Your task to perform on an android device: Open Reddit.com Image 0: 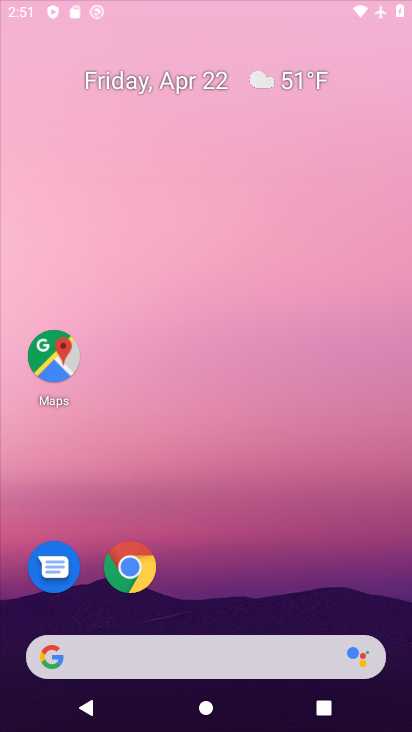
Step 0: drag from (248, 689) to (86, 129)
Your task to perform on an android device: Open Reddit.com Image 1: 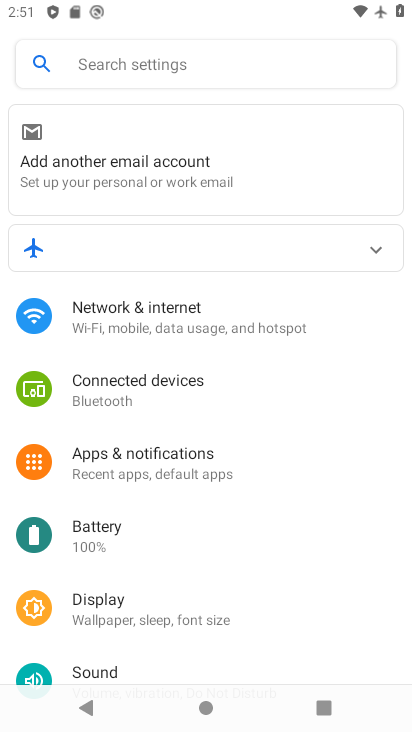
Step 1: click (131, 310)
Your task to perform on an android device: Open Reddit.com Image 2: 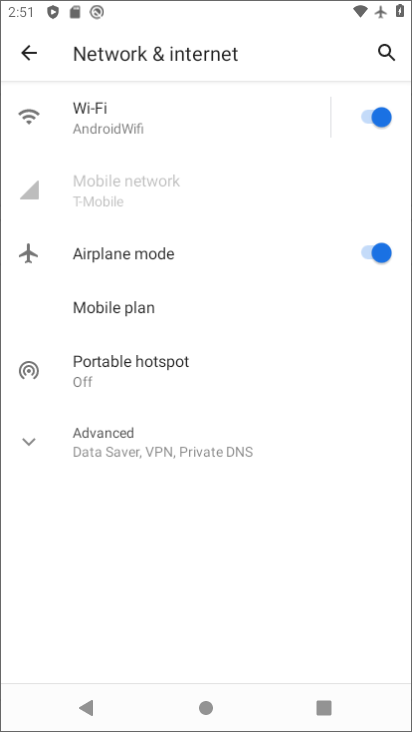
Step 2: press home button
Your task to perform on an android device: Open Reddit.com Image 3: 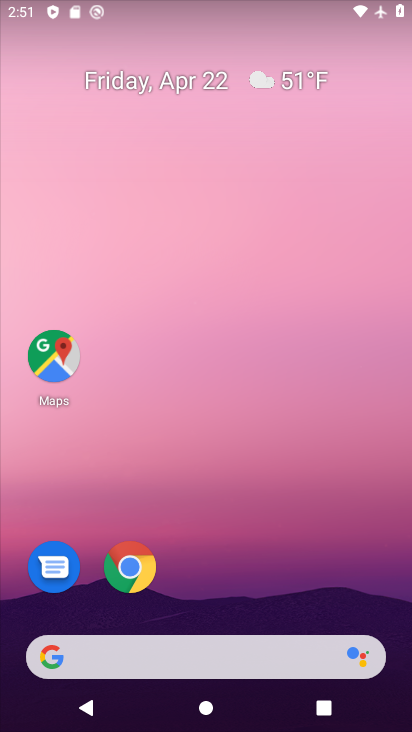
Step 3: drag from (246, 643) to (65, 42)
Your task to perform on an android device: Open Reddit.com Image 4: 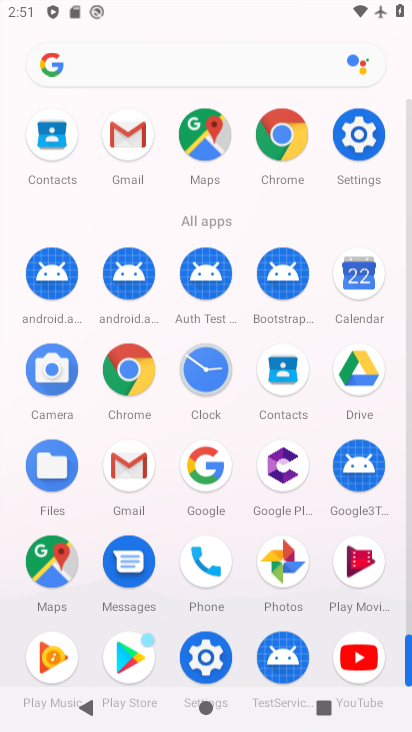
Step 4: drag from (202, 642) to (110, 118)
Your task to perform on an android device: Open Reddit.com Image 5: 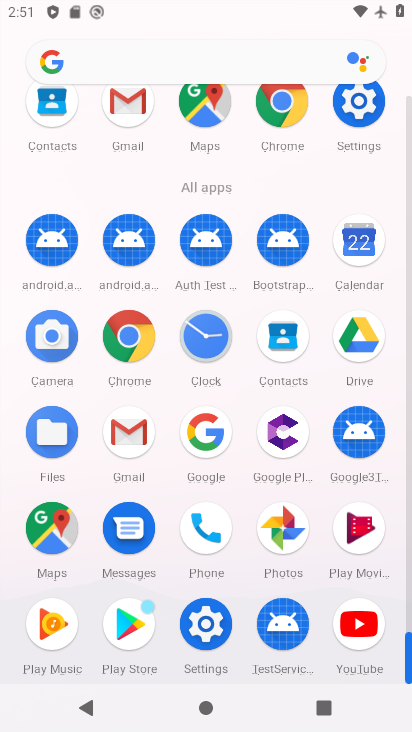
Step 5: click (280, 112)
Your task to perform on an android device: Open Reddit.com Image 6: 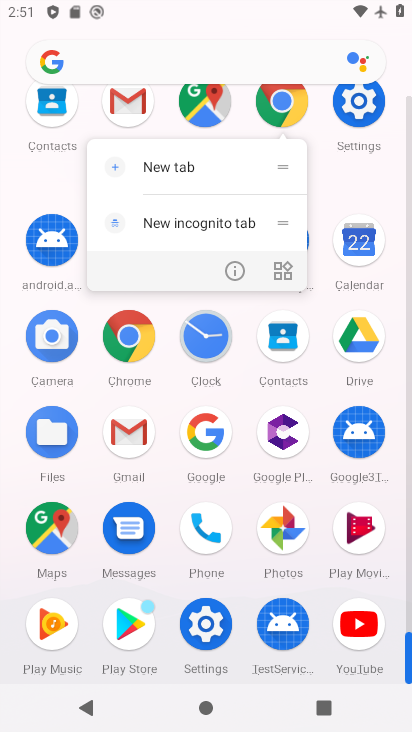
Step 6: click (280, 112)
Your task to perform on an android device: Open Reddit.com Image 7: 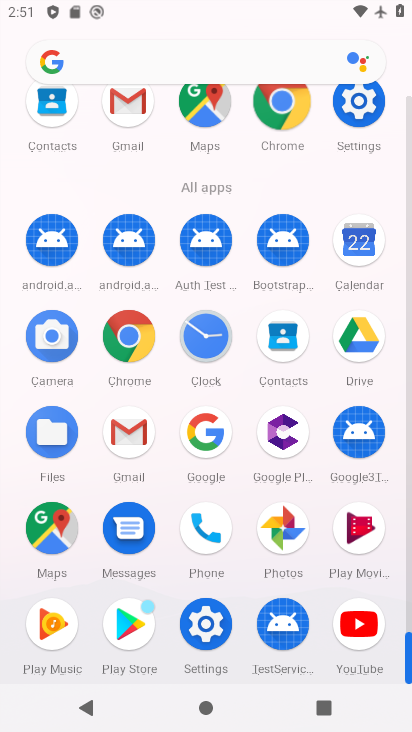
Step 7: click (281, 111)
Your task to perform on an android device: Open Reddit.com Image 8: 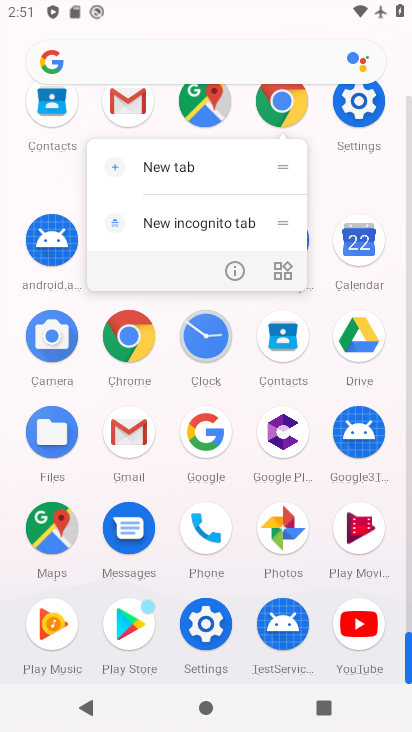
Step 8: click (187, 165)
Your task to perform on an android device: Open Reddit.com Image 9: 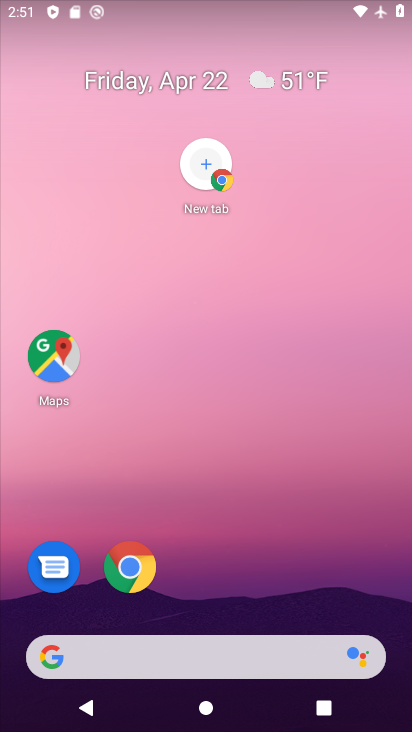
Step 9: drag from (251, 495) to (72, 30)
Your task to perform on an android device: Open Reddit.com Image 10: 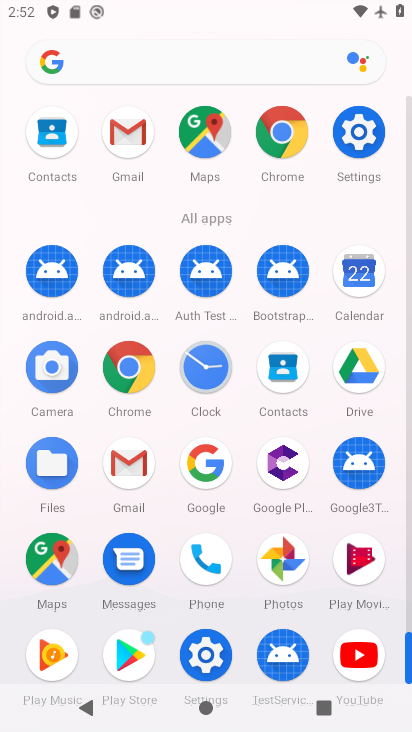
Step 10: click (275, 145)
Your task to perform on an android device: Open Reddit.com Image 11: 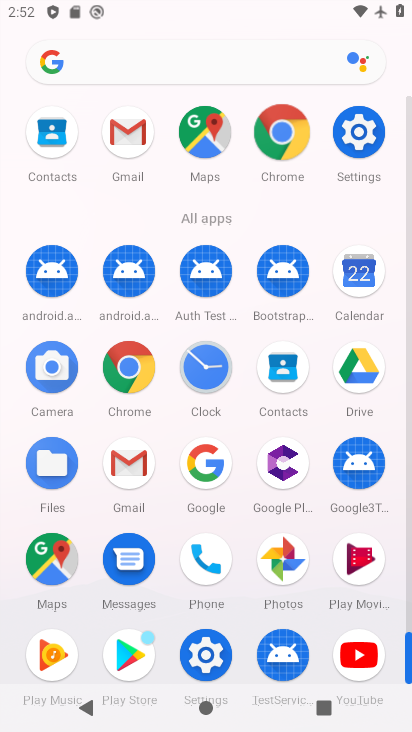
Step 11: click (275, 145)
Your task to perform on an android device: Open Reddit.com Image 12: 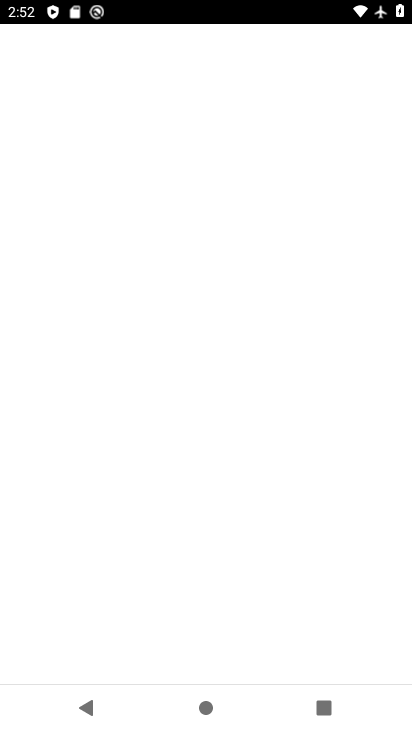
Step 12: click (275, 145)
Your task to perform on an android device: Open Reddit.com Image 13: 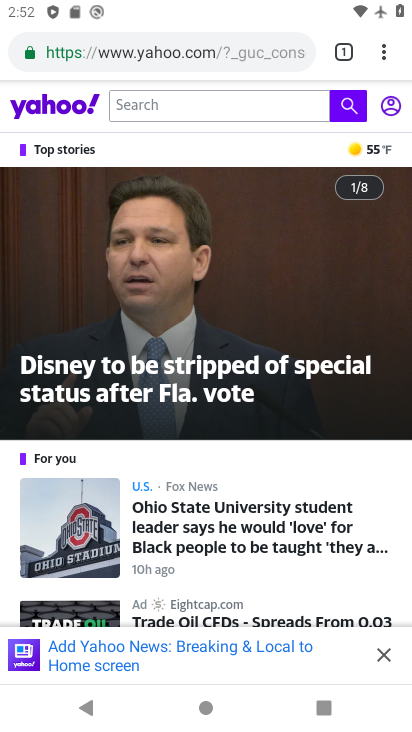
Step 13: drag from (381, 51) to (202, 99)
Your task to perform on an android device: Open Reddit.com Image 14: 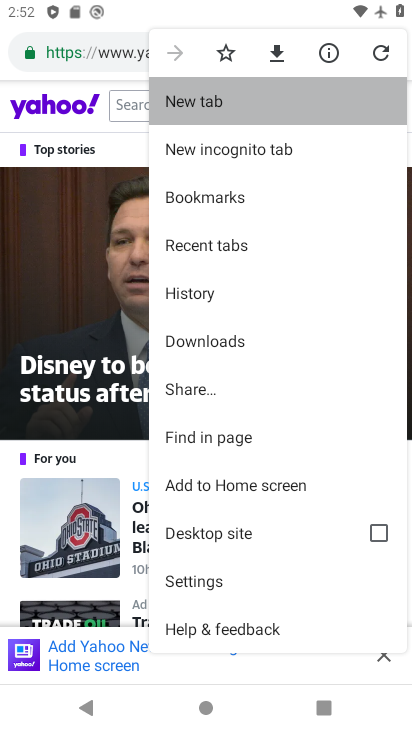
Step 14: click (202, 99)
Your task to perform on an android device: Open Reddit.com Image 15: 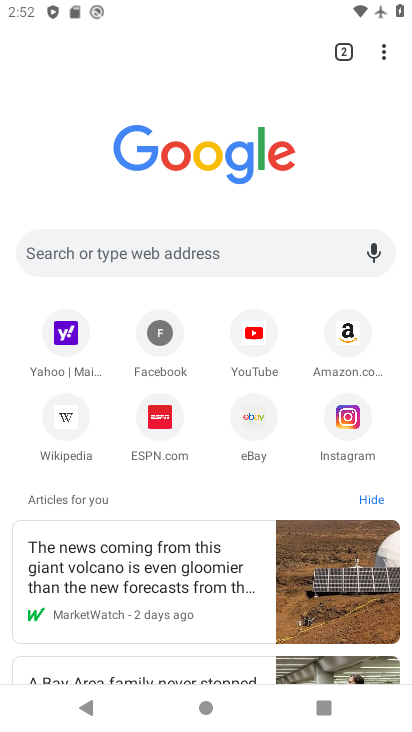
Step 15: click (101, 249)
Your task to perform on an android device: Open Reddit.com Image 16: 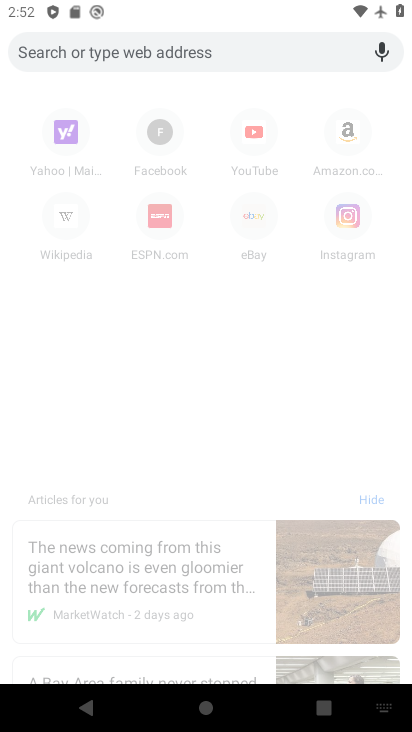
Step 16: type "www.reddit.com"
Your task to perform on an android device: Open Reddit.com Image 17: 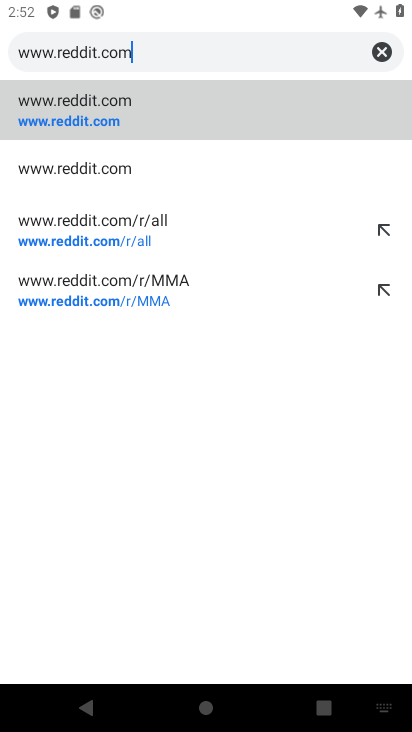
Step 17: click (79, 122)
Your task to perform on an android device: Open Reddit.com Image 18: 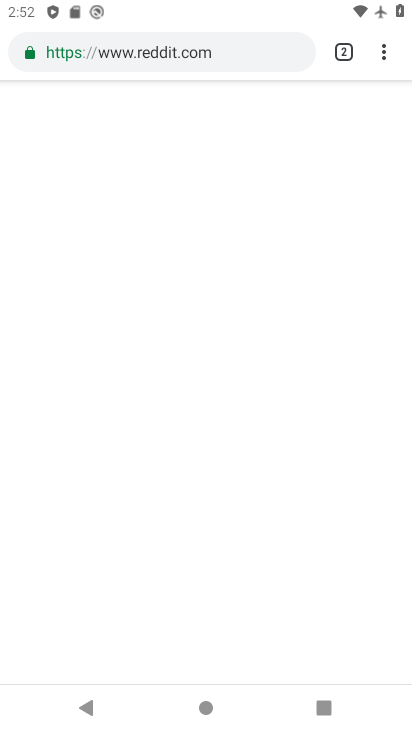
Step 18: task complete